Your task to perform on an android device: create a new album in the google photos Image 0: 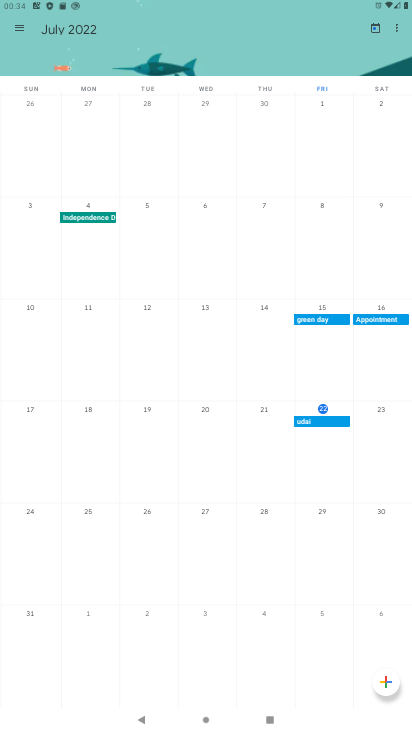
Step 0: press home button
Your task to perform on an android device: create a new album in the google photos Image 1: 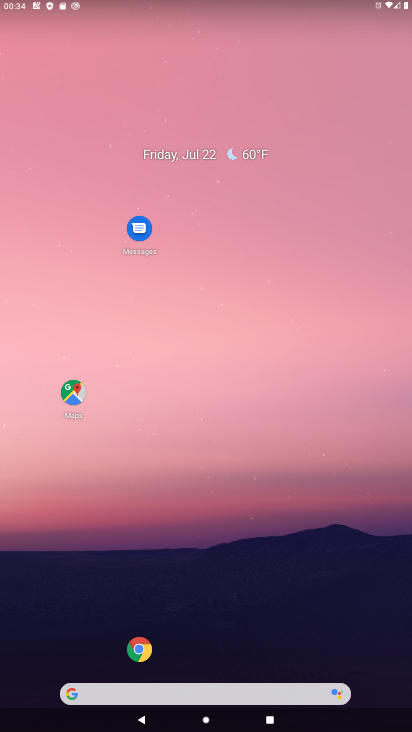
Step 1: click (47, 150)
Your task to perform on an android device: create a new album in the google photos Image 2: 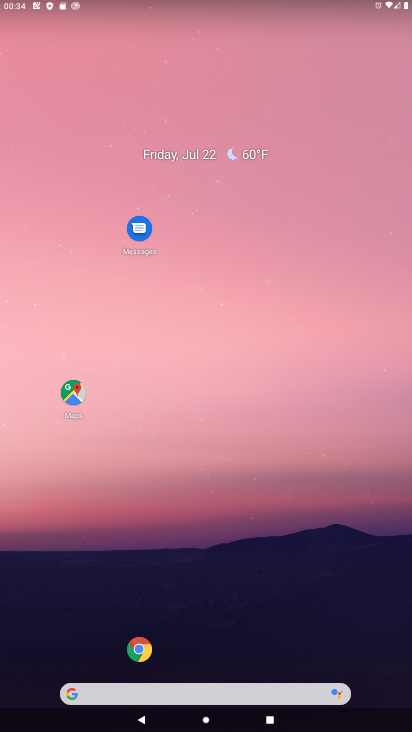
Step 2: drag from (26, 676) to (89, 173)
Your task to perform on an android device: create a new album in the google photos Image 3: 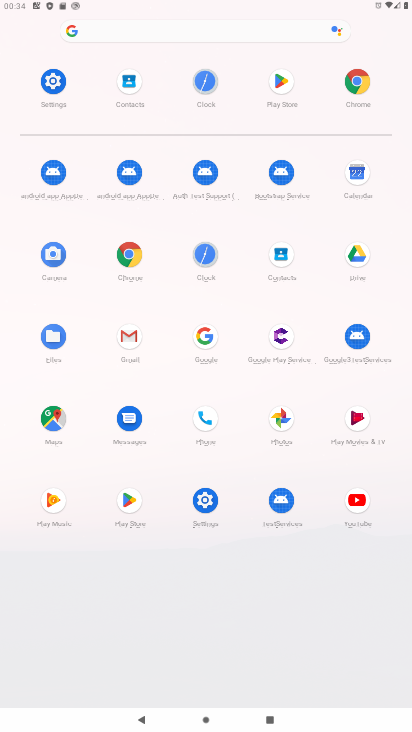
Step 3: click (287, 418)
Your task to perform on an android device: create a new album in the google photos Image 4: 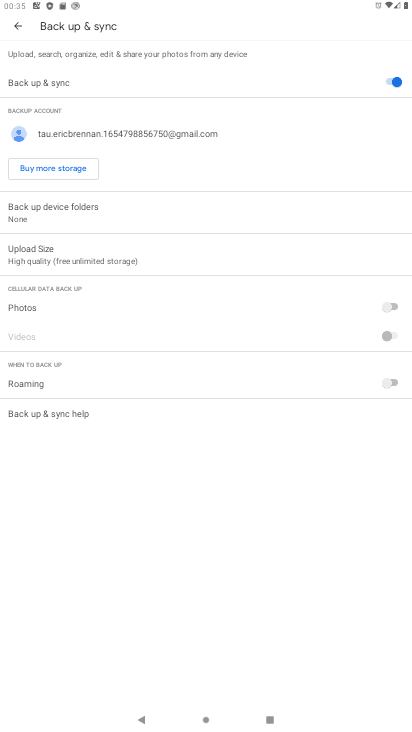
Step 4: click (21, 24)
Your task to perform on an android device: create a new album in the google photos Image 5: 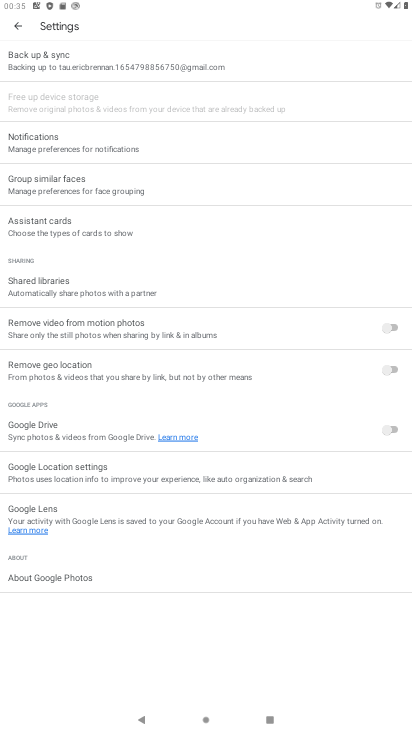
Step 5: click (21, 24)
Your task to perform on an android device: create a new album in the google photos Image 6: 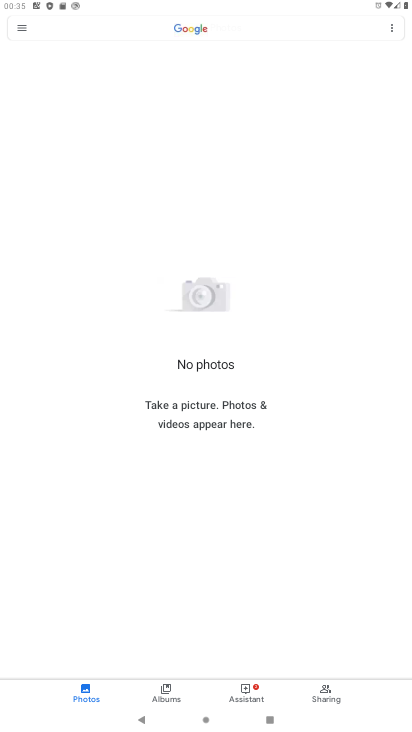
Step 6: task complete